Your task to perform on an android device: make emails show in primary in the gmail app Image 0: 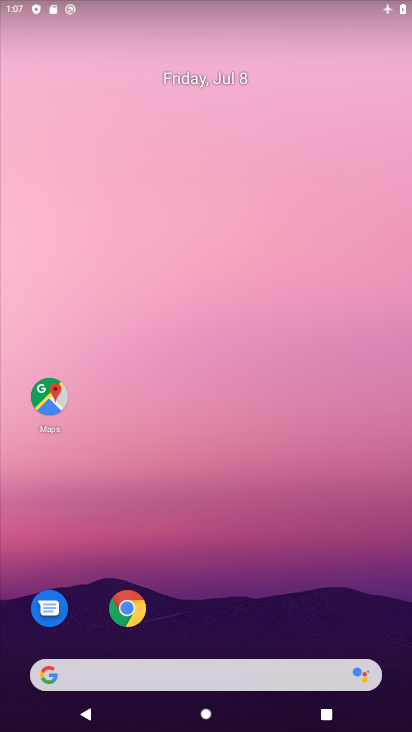
Step 0: drag from (354, 615) to (321, 138)
Your task to perform on an android device: make emails show in primary in the gmail app Image 1: 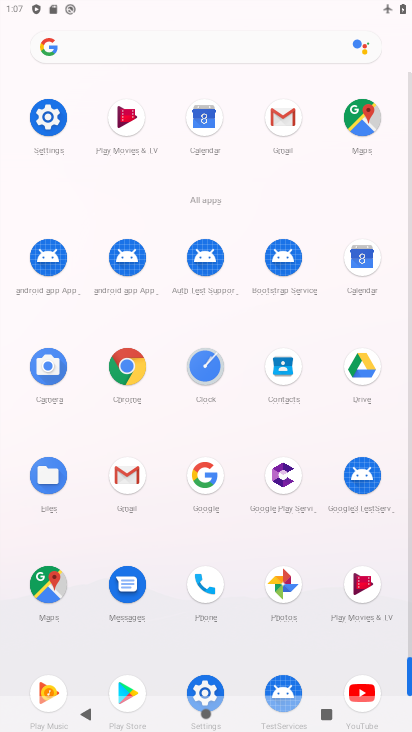
Step 1: click (126, 476)
Your task to perform on an android device: make emails show in primary in the gmail app Image 2: 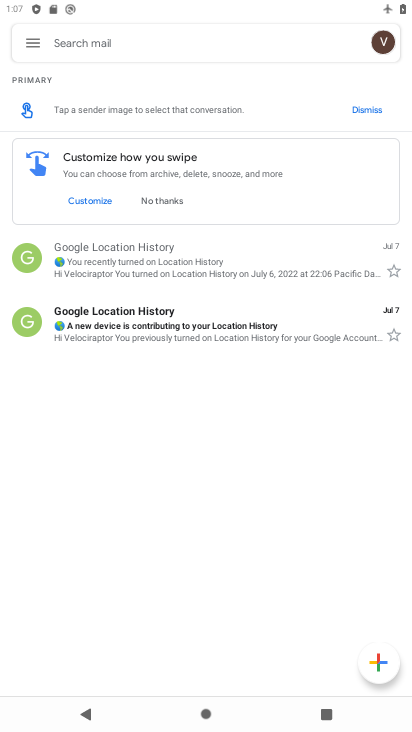
Step 2: click (36, 45)
Your task to perform on an android device: make emails show in primary in the gmail app Image 3: 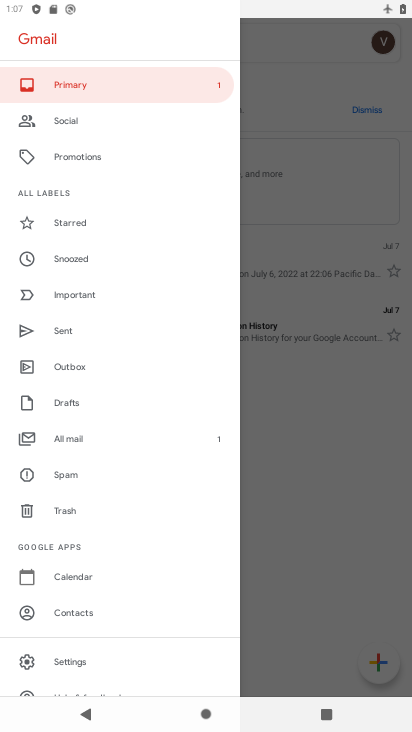
Step 3: click (76, 86)
Your task to perform on an android device: make emails show in primary in the gmail app Image 4: 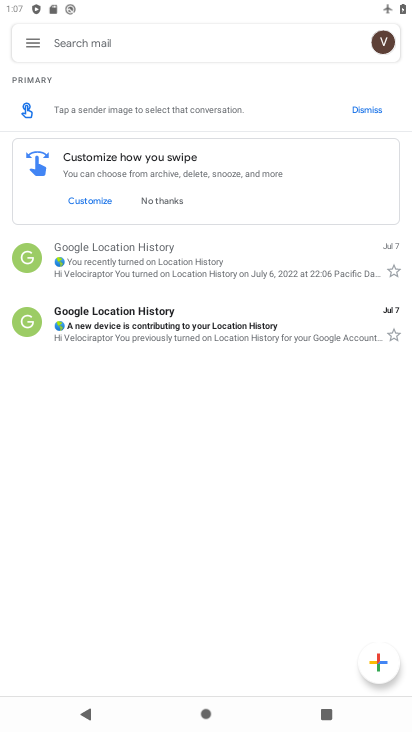
Step 4: task complete